Your task to perform on an android device: add a label to a message in the gmail app Image 0: 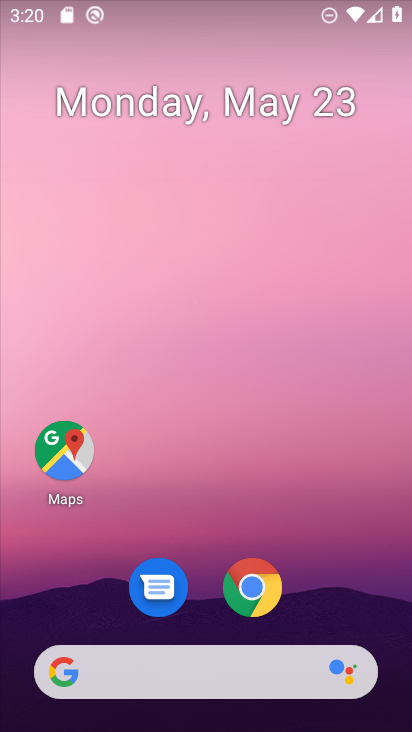
Step 0: drag from (194, 597) to (168, 0)
Your task to perform on an android device: add a label to a message in the gmail app Image 1: 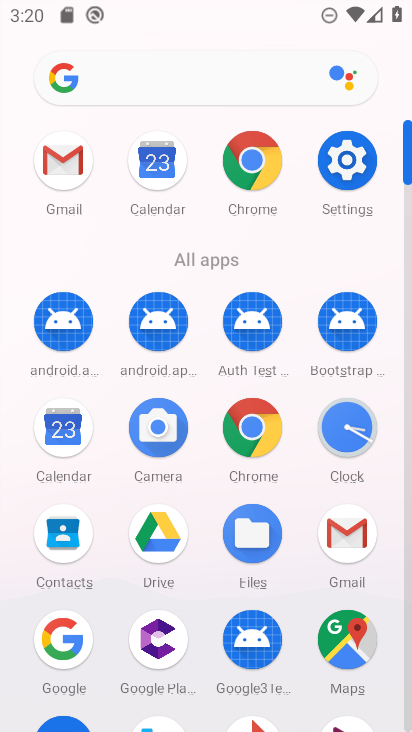
Step 1: click (356, 537)
Your task to perform on an android device: add a label to a message in the gmail app Image 2: 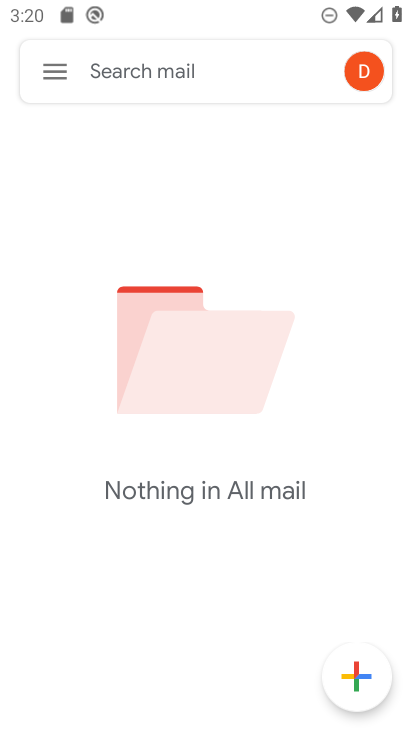
Step 2: task complete